Your task to perform on an android device: create a new album in the google photos Image 0: 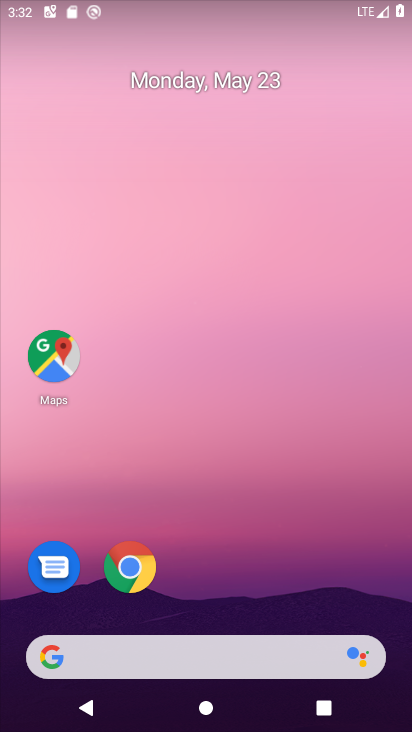
Step 0: drag from (29, 649) to (339, 98)
Your task to perform on an android device: create a new album in the google photos Image 1: 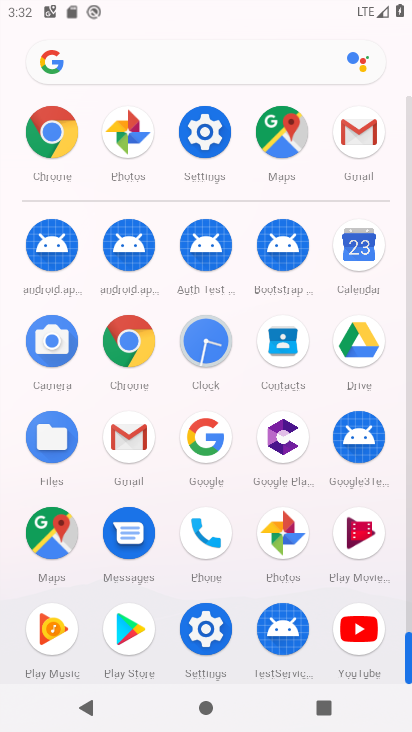
Step 1: click (130, 136)
Your task to perform on an android device: create a new album in the google photos Image 2: 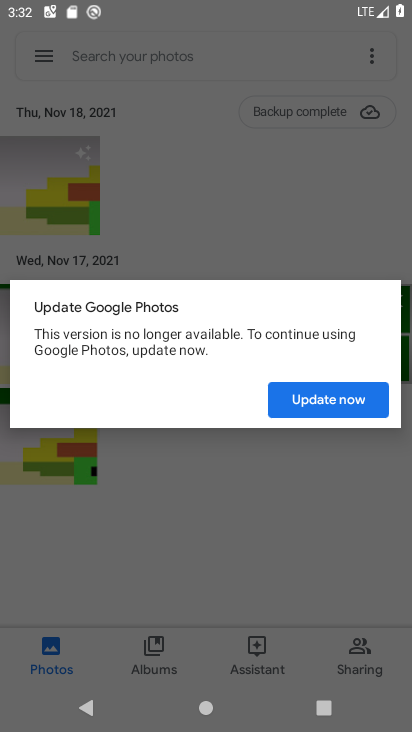
Step 2: click (297, 408)
Your task to perform on an android device: create a new album in the google photos Image 3: 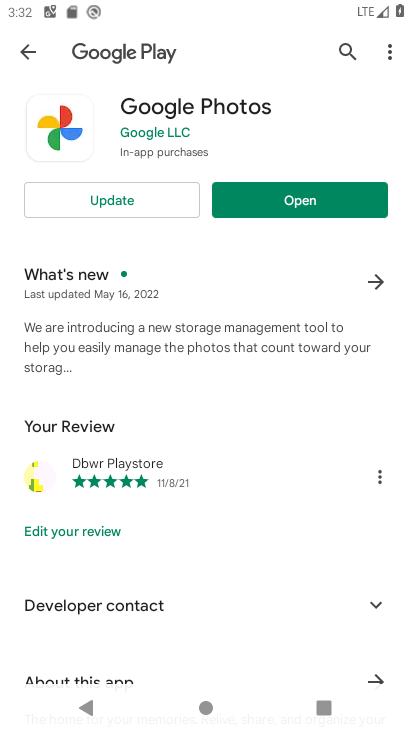
Step 3: click (257, 217)
Your task to perform on an android device: create a new album in the google photos Image 4: 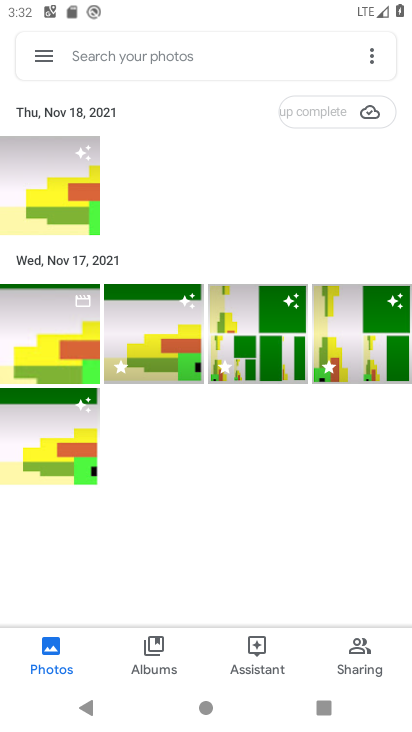
Step 4: click (377, 56)
Your task to perform on an android device: create a new album in the google photos Image 5: 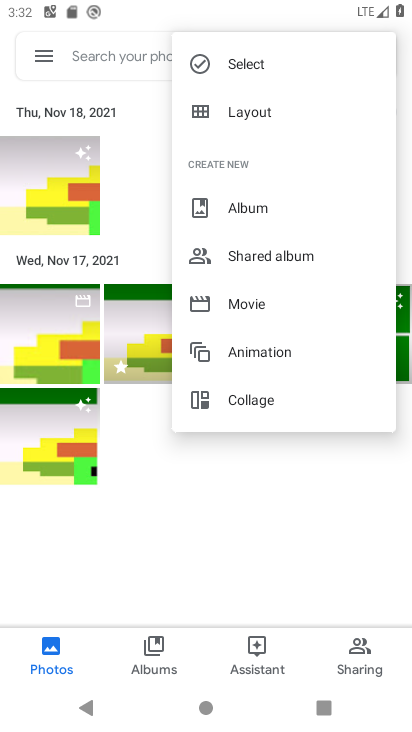
Step 5: click (230, 212)
Your task to perform on an android device: create a new album in the google photos Image 6: 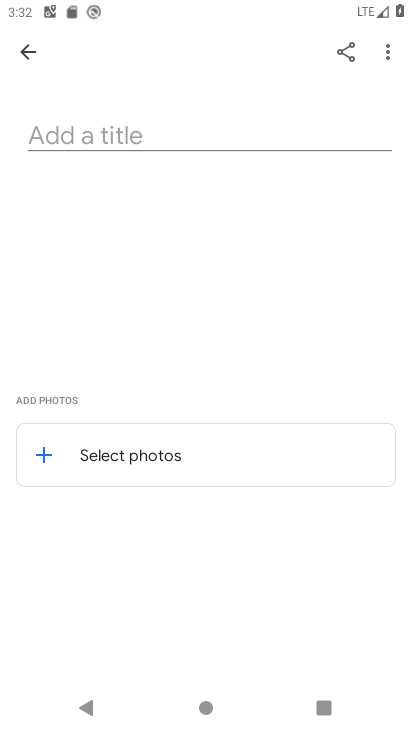
Step 6: click (120, 131)
Your task to perform on an android device: create a new album in the google photos Image 7: 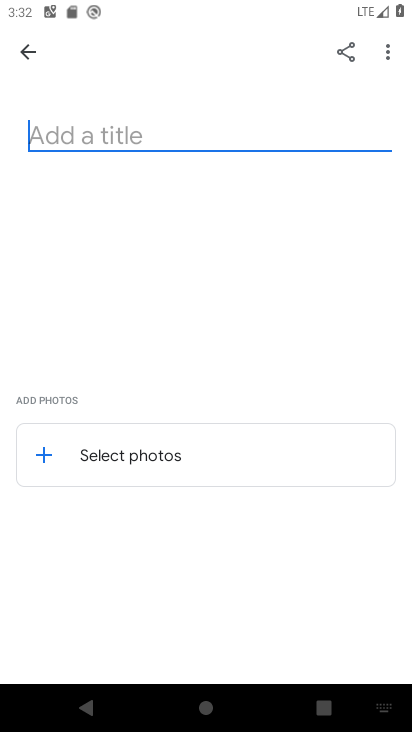
Step 7: type "ddsdsdsd"
Your task to perform on an android device: create a new album in the google photos Image 8: 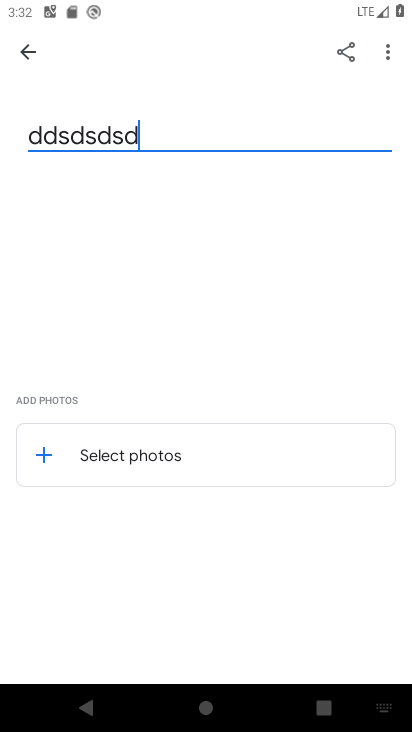
Step 8: type ""
Your task to perform on an android device: create a new album in the google photos Image 9: 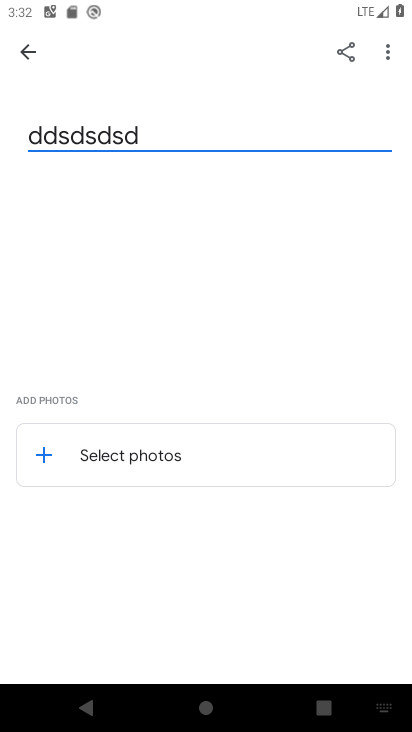
Step 9: click (263, 463)
Your task to perform on an android device: create a new album in the google photos Image 10: 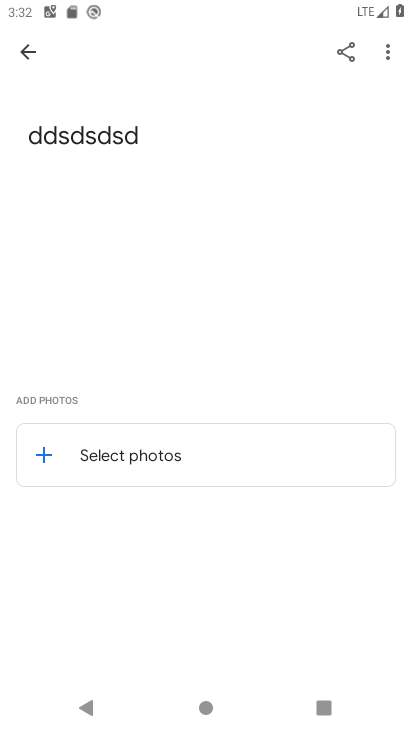
Step 10: click (130, 452)
Your task to perform on an android device: create a new album in the google photos Image 11: 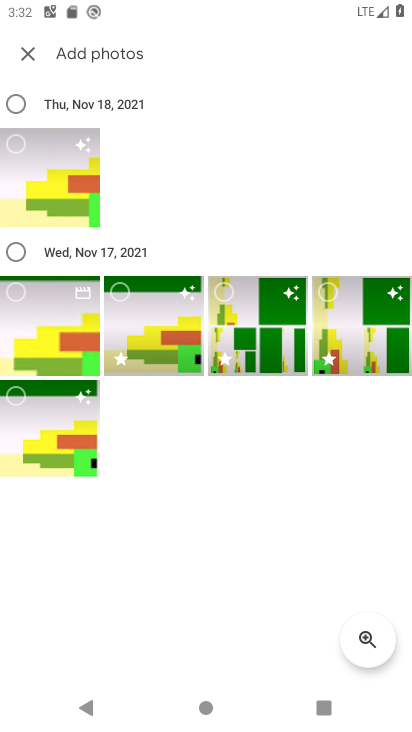
Step 11: click (186, 366)
Your task to perform on an android device: create a new album in the google photos Image 12: 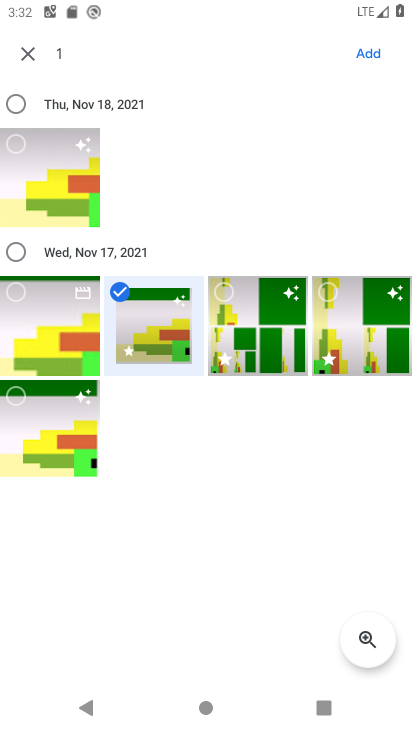
Step 12: click (364, 47)
Your task to perform on an android device: create a new album in the google photos Image 13: 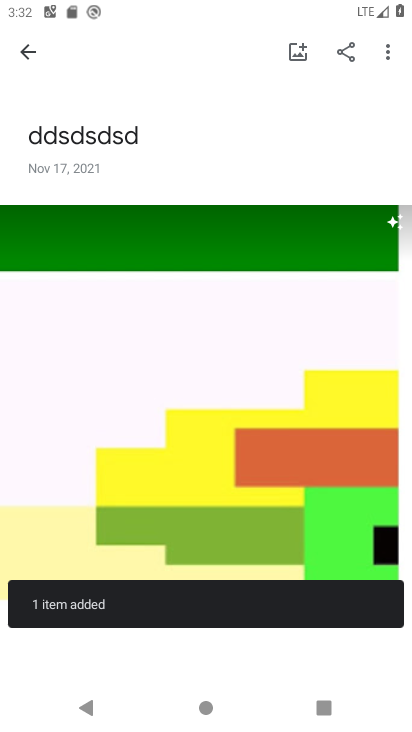
Step 13: task complete